Your task to perform on an android device: Go to Amazon Image 0: 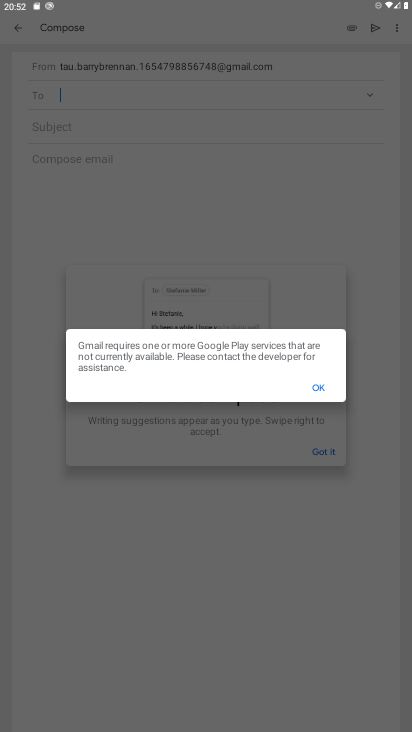
Step 0: press home button
Your task to perform on an android device: Go to Amazon Image 1: 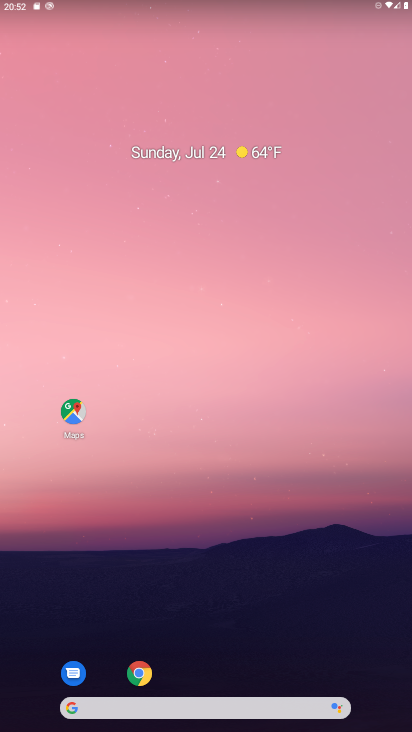
Step 1: click (145, 667)
Your task to perform on an android device: Go to Amazon Image 2: 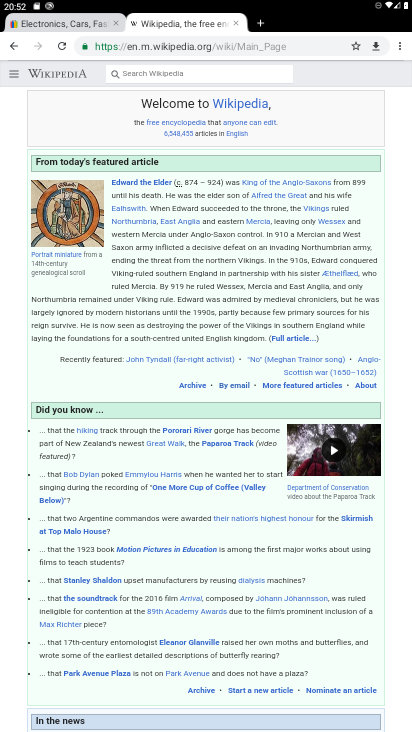
Step 2: click (261, 22)
Your task to perform on an android device: Go to Amazon Image 3: 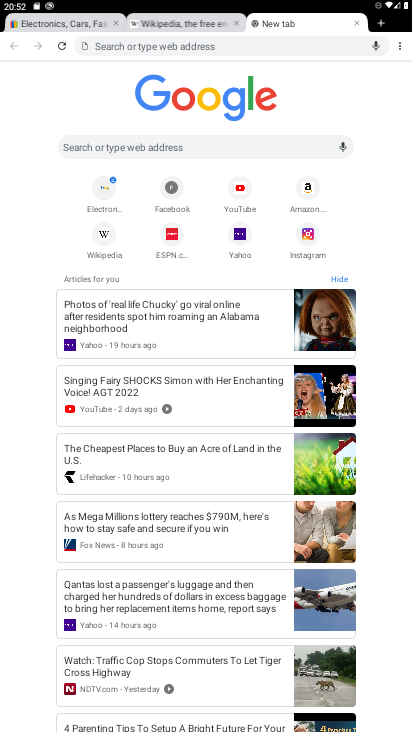
Step 3: click (307, 187)
Your task to perform on an android device: Go to Amazon Image 4: 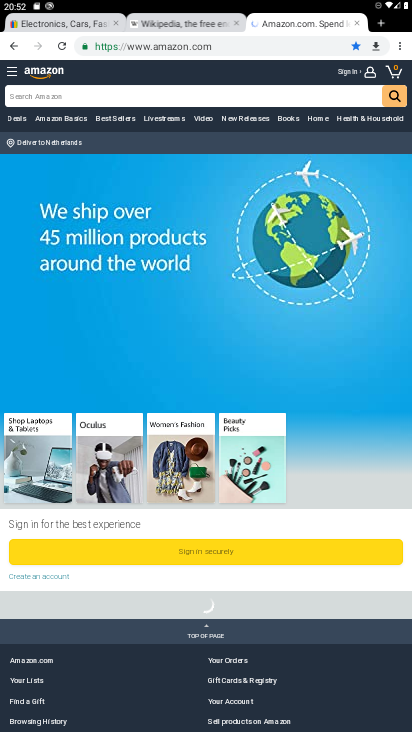
Step 4: task complete